Your task to perform on an android device: Open Yahoo.com Image 0: 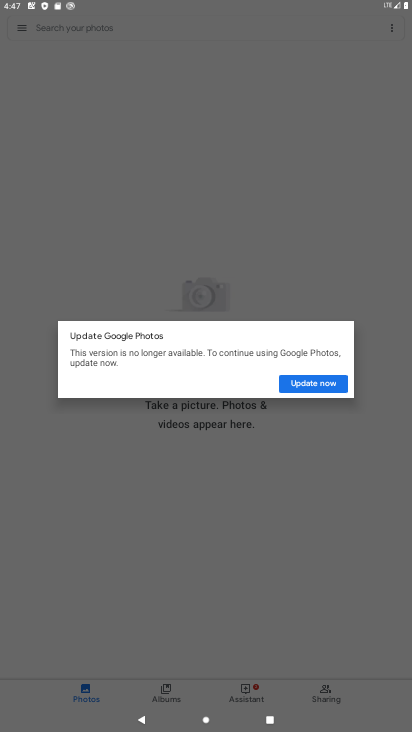
Step 0: click (264, 503)
Your task to perform on an android device: Open Yahoo.com Image 1: 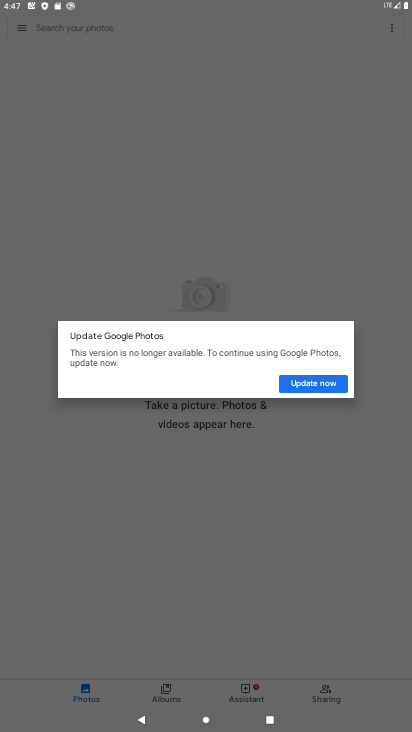
Step 1: press back button
Your task to perform on an android device: Open Yahoo.com Image 2: 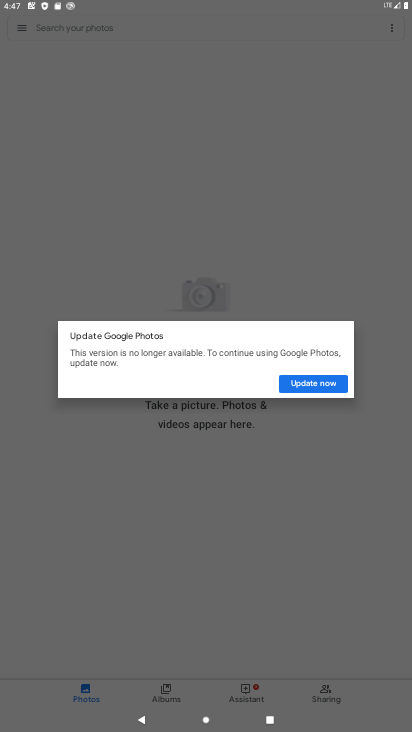
Step 2: press back button
Your task to perform on an android device: Open Yahoo.com Image 3: 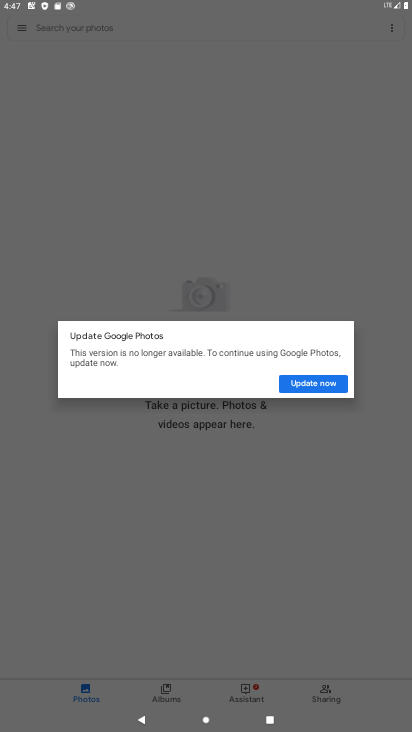
Step 3: press back button
Your task to perform on an android device: Open Yahoo.com Image 4: 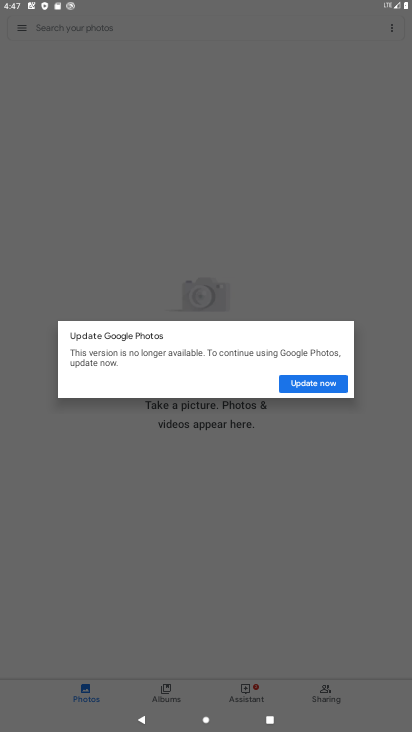
Step 4: press home button
Your task to perform on an android device: Open Yahoo.com Image 5: 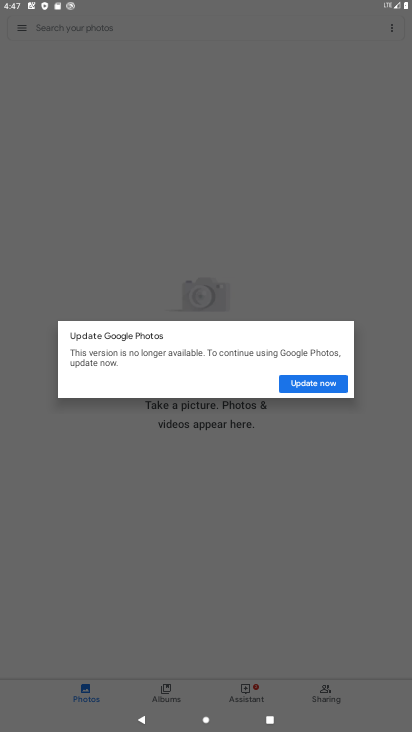
Step 5: press home button
Your task to perform on an android device: Open Yahoo.com Image 6: 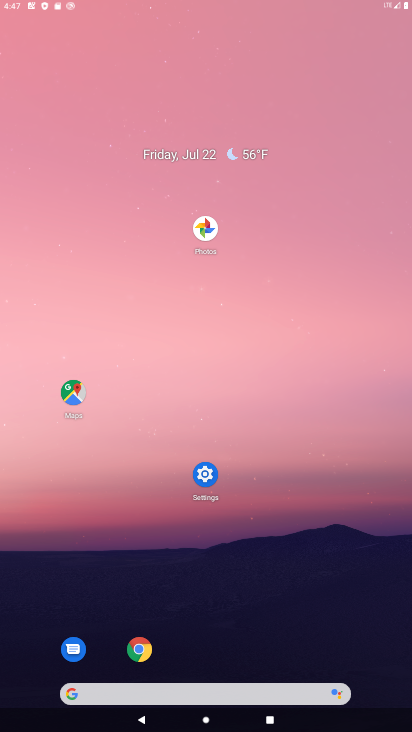
Step 6: press home button
Your task to perform on an android device: Open Yahoo.com Image 7: 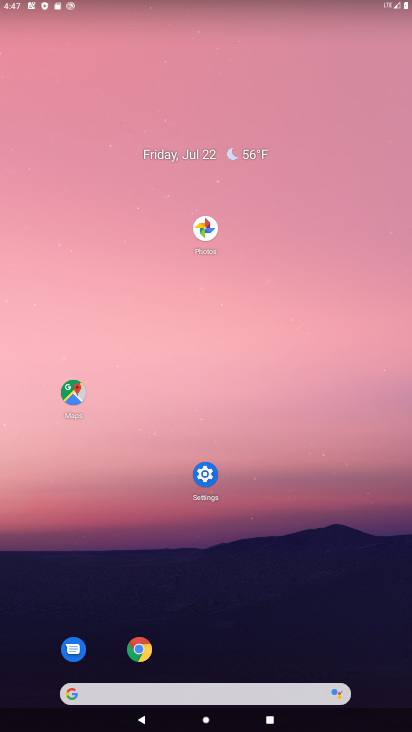
Step 7: press home button
Your task to perform on an android device: Open Yahoo.com Image 8: 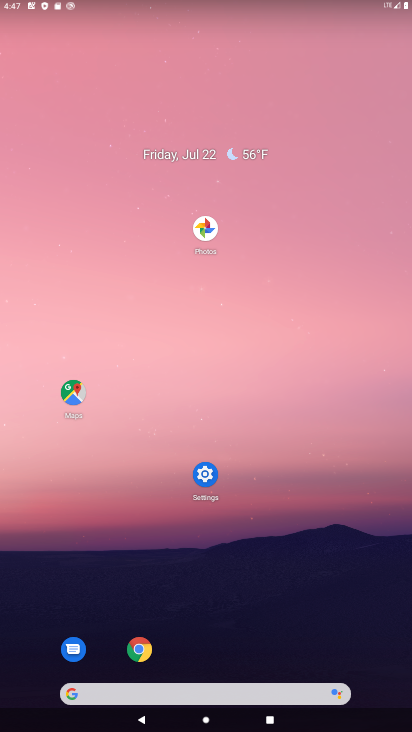
Step 8: drag from (242, 220) to (157, 65)
Your task to perform on an android device: Open Yahoo.com Image 9: 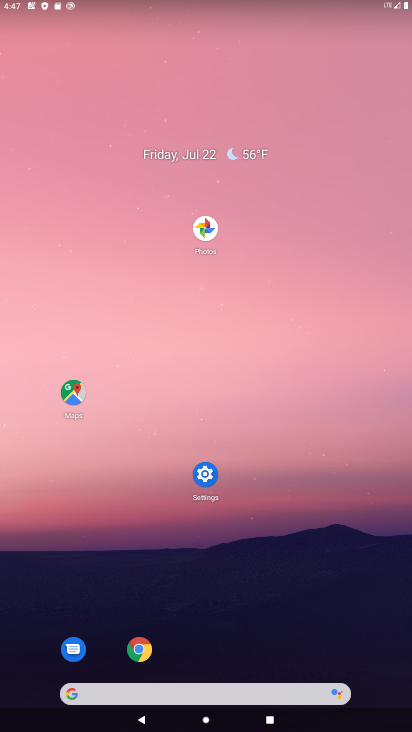
Step 9: drag from (168, 271) to (157, 120)
Your task to perform on an android device: Open Yahoo.com Image 10: 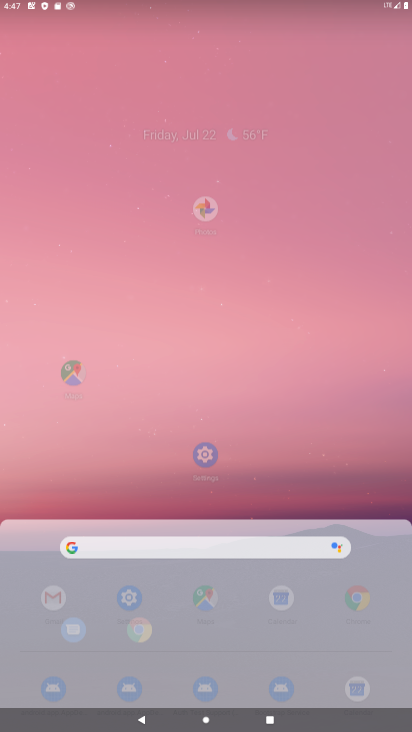
Step 10: drag from (172, 523) to (172, 103)
Your task to perform on an android device: Open Yahoo.com Image 11: 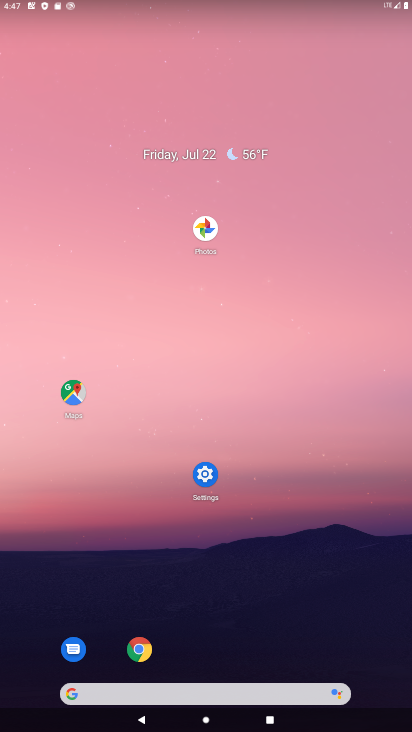
Step 11: drag from (216, 510) to (144, 23)
Your task to perform on an android device: Open Yahoo.com Image 12: 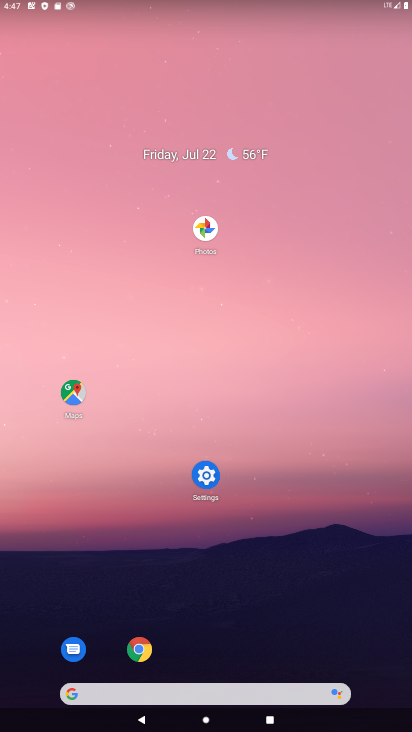
Step 12: drag from (219, 510) to (177, 146)
Your task to perform on an android device: Open Yahoo.com Image 13: 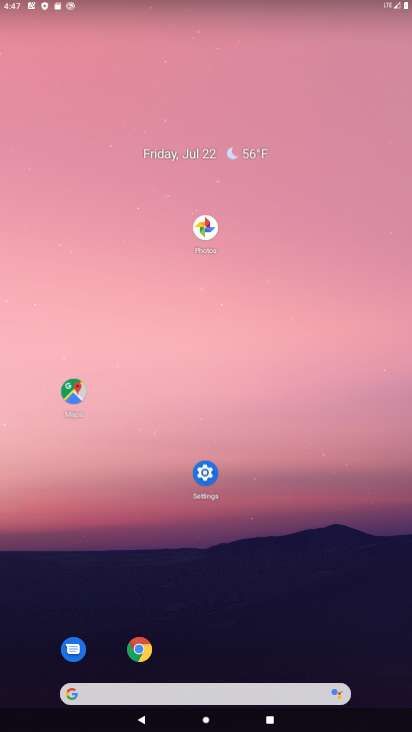
Step 13: click (182, 64)
Your task to perform on an android device: Open Yahoo.com Image 14: 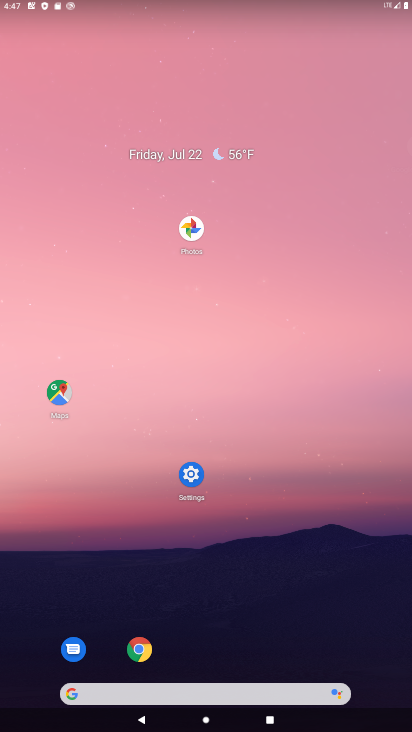
Step 14: click (149, 34)
Your task to perform on an android device: Open Yahoo.com Image 15: 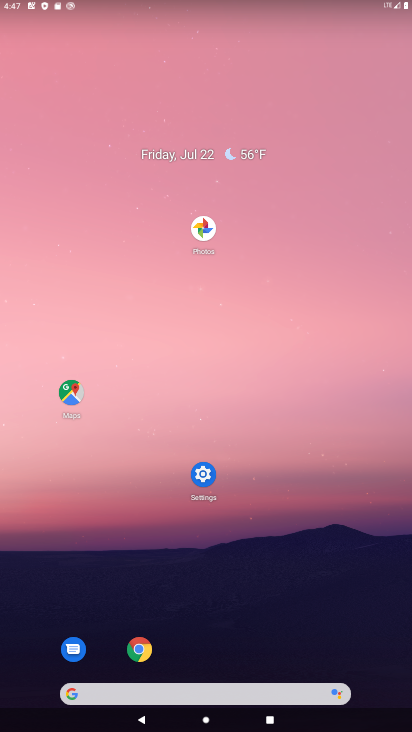
Step 15: click (148, 49)
Your task to perform on an android device: Open Yahoo.com Image 16: 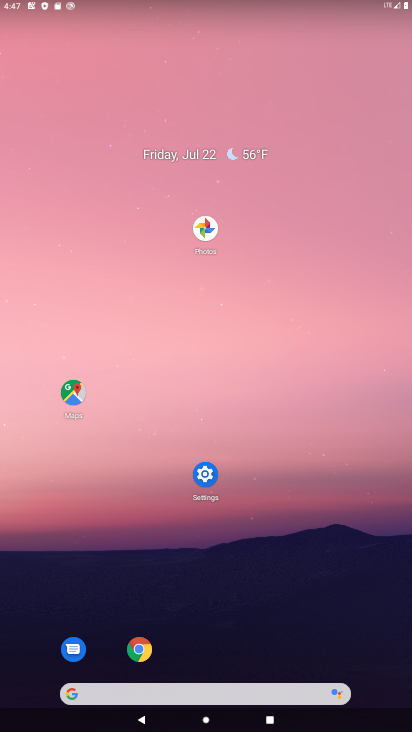
Step 16: drag from (223, 133) to (215, 57)
Your task to perform on an android device: Open Yahoo.com Image 17: 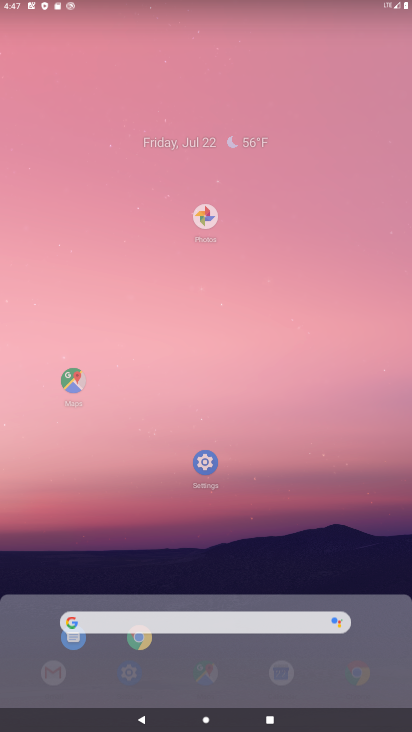
Step 17: click (162, 26)
Your task to perform on an android device: Open Yahoo.com Image 18: 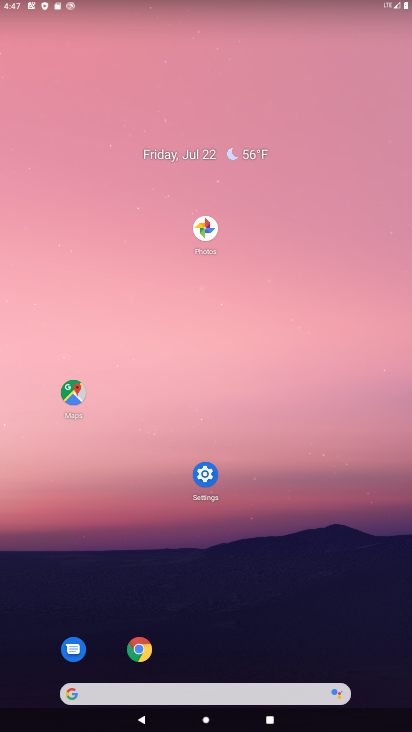
Step 18: drag from (228, 536) to (228, 53)
Your task to perform on an android device: Open Yahoo.com Image 19: 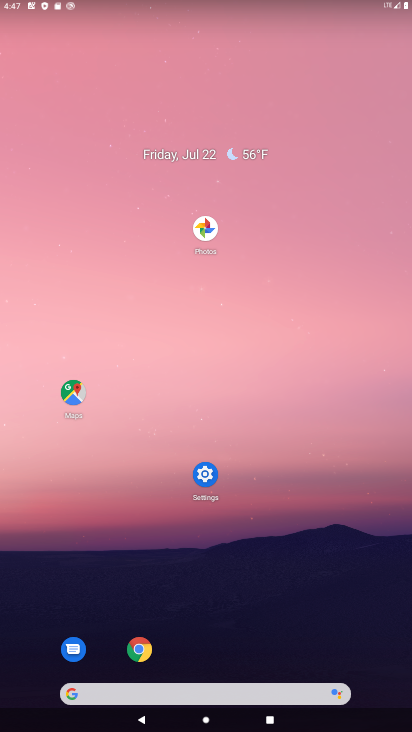
Step 19: drag from (242, 403) to (196, 29)
Your task to perform on an android device: Open Yahoo.com Image 20: 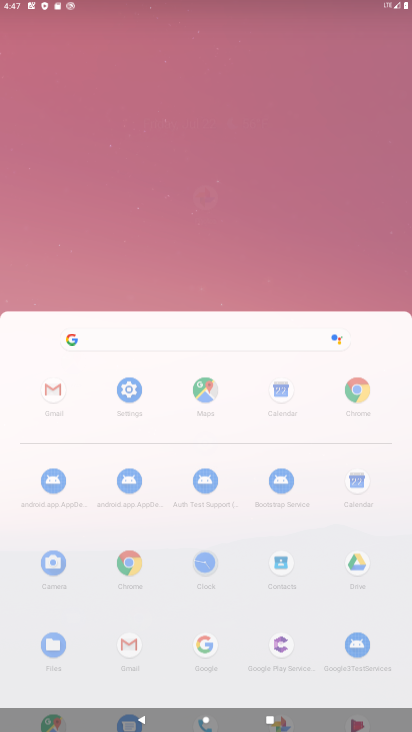
Step 20: drag from (175, 444) to (156, 100)
Your task to perform on an android device: Open Yahoo.com Image 21: 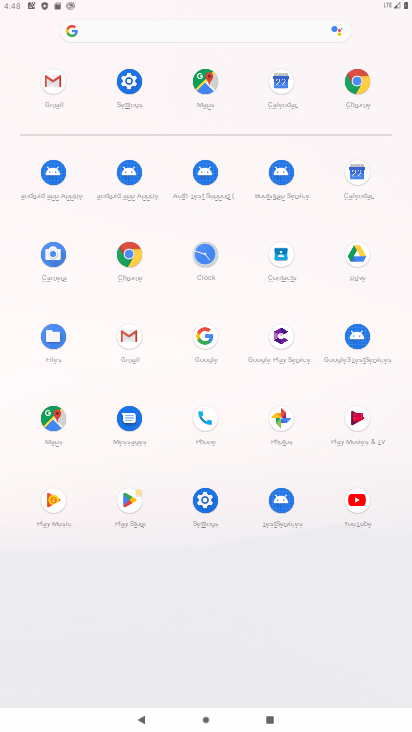
Step 21: click (362, 74)
Your task to perform on an android device: Open Yahoo.com Image 22: 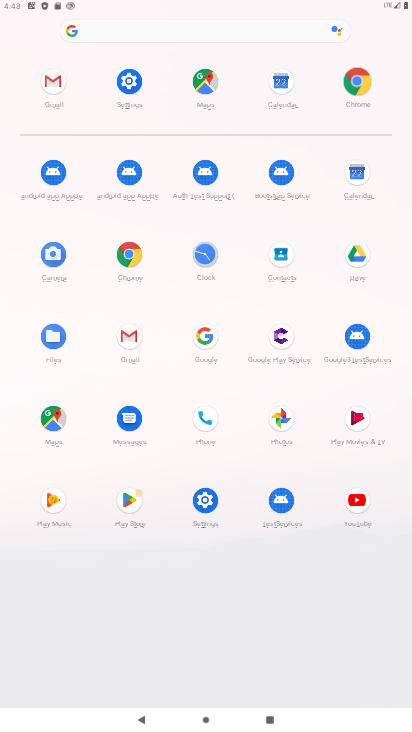
Step 22: click (359, 76)
Your task to perform on an android device: Open Yahoo.com Image 23: 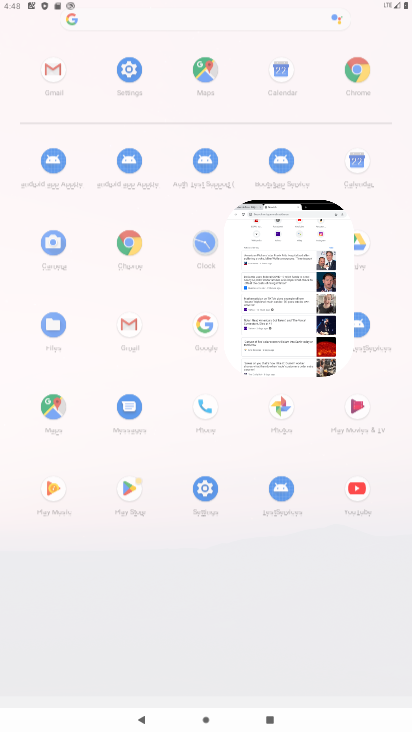
Step 23: click (354, 78)
Your task to perform on an android device: Open Yahoo.com Image 24: 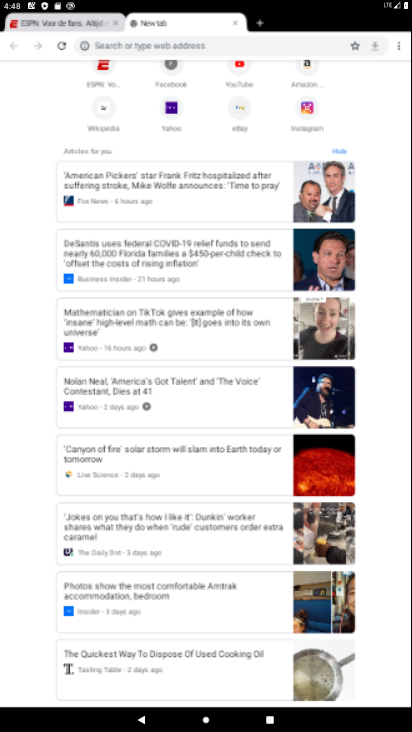
Step 24: click (351, 79)
Your task to perform on an android device: Open Yahoo.com Image 25: 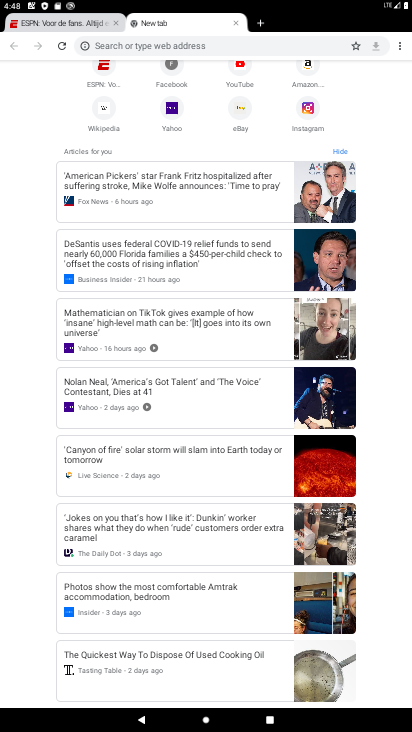
Step 25: click (351, 76)
Your task to perform on an android device: Open Yahoo.com Image 26: 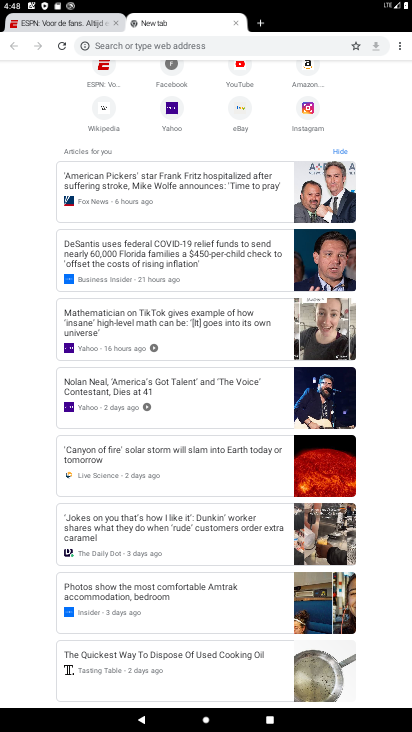
Step 26: click (175, 111)
Your task to perform on an android device: Open Yahoo.com Image 27: 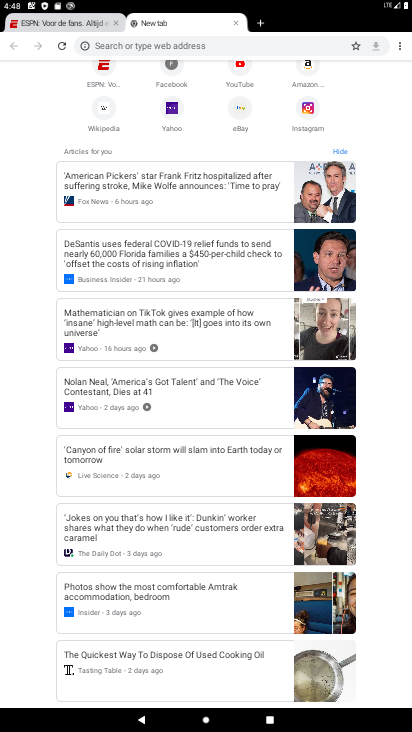
Step 27: click (174, 111)
Your task to perform on an android device: Open Yahoo.com Image 28: 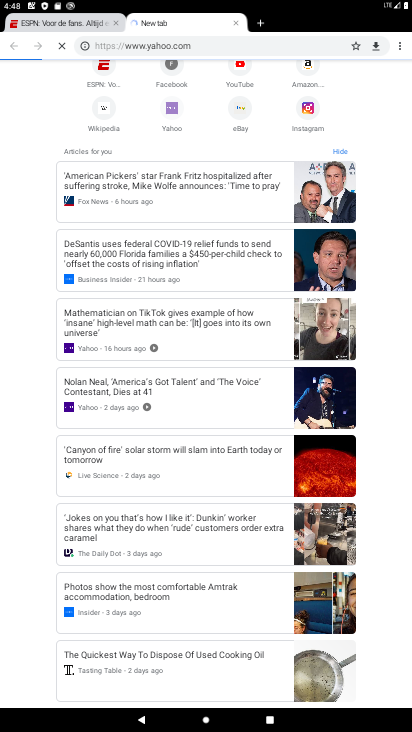
Step 28: click (172, 111)
Your task to perform on an android device: Open Yahoo.com Image 29: 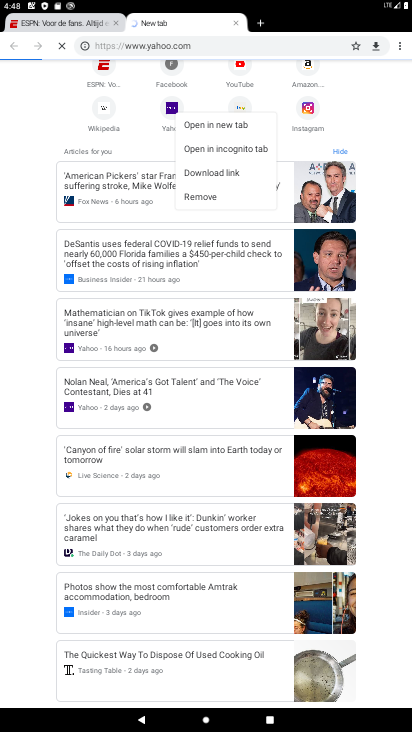
Step 29: click (171, 112)
Your task to perform on an android device: Open Yahoo.com Image 30: 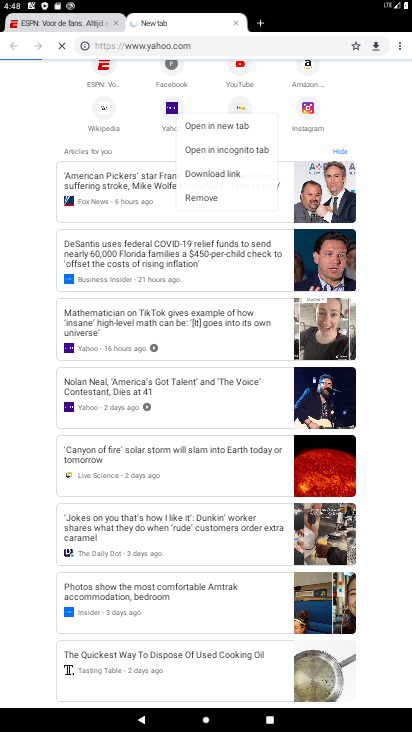
Step 30: click (170, 113)
Your task to perform on an android device: Open Yahoo.com Image 31: 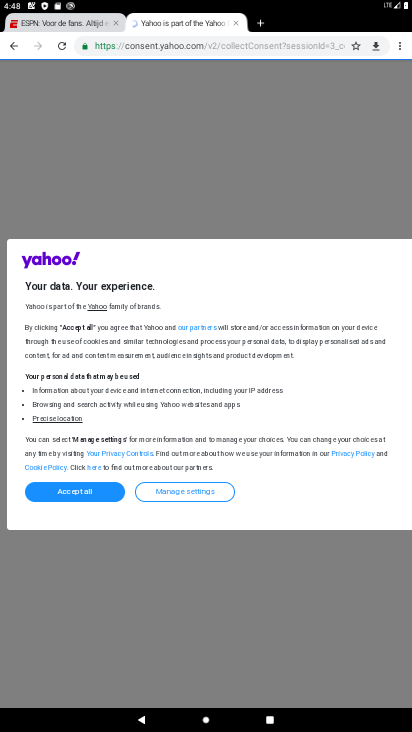
Step 31: click (170, 113)
Your task to perform on an android device: Open Yahoo.com Image 32: 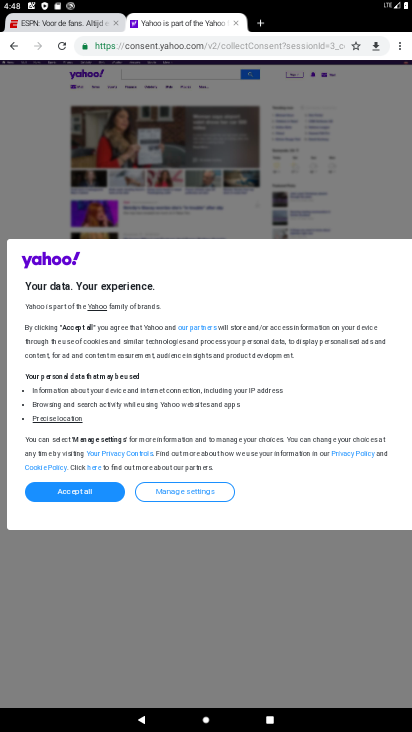
Step 32: task complete